Your task to perform on an android device: add a contact in the contacts app Image 0: 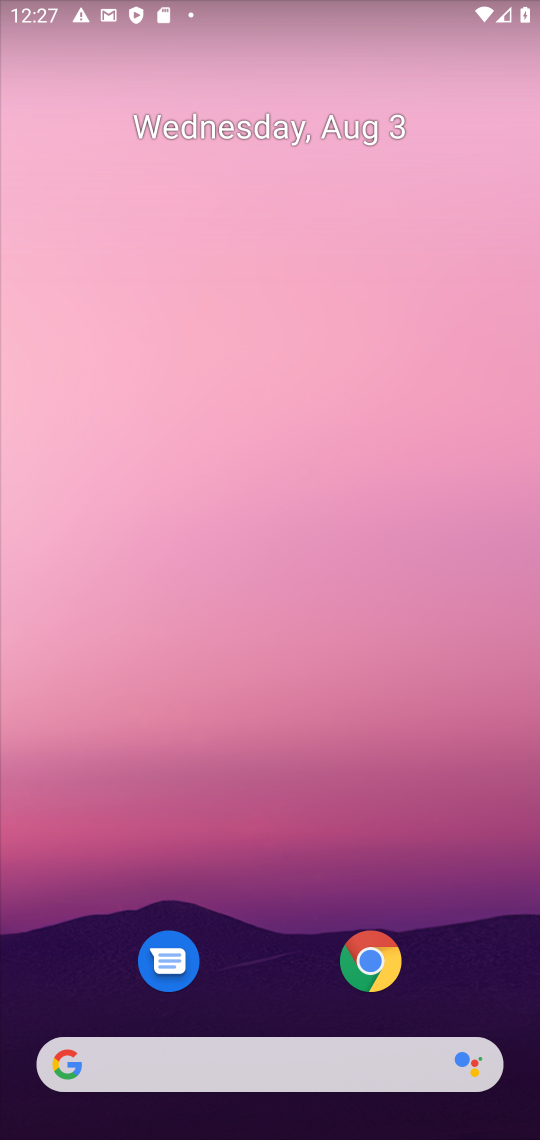
Step 0: drag from (295, 778) to (302, 59)
Your task to perform on an android device: add a contact in the contacts app Image 1: 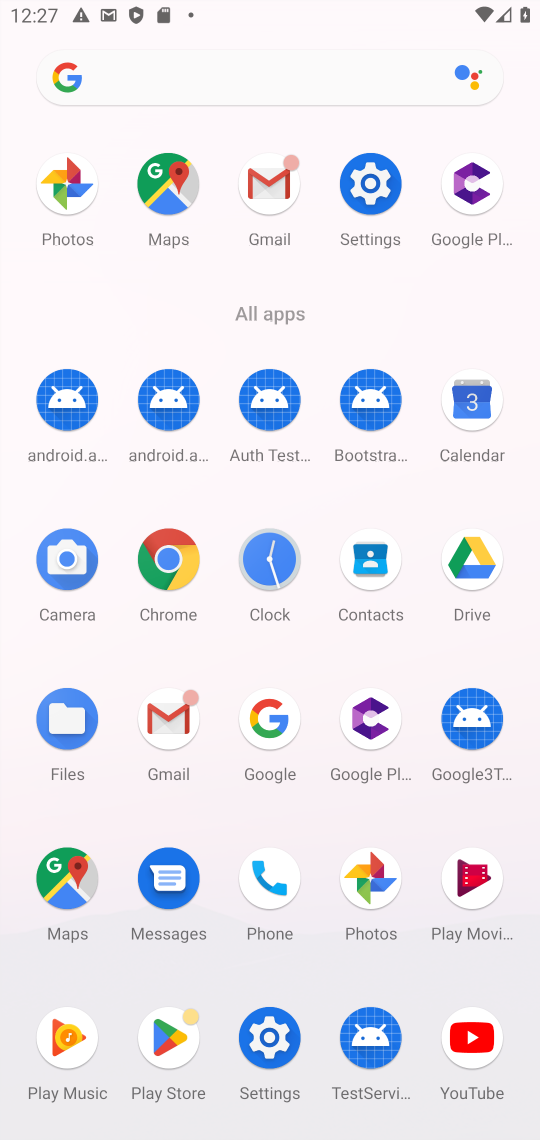
Step 1: click (366, 568)
Your task to perform on an android device: add a contact in the contacts app Image 2: 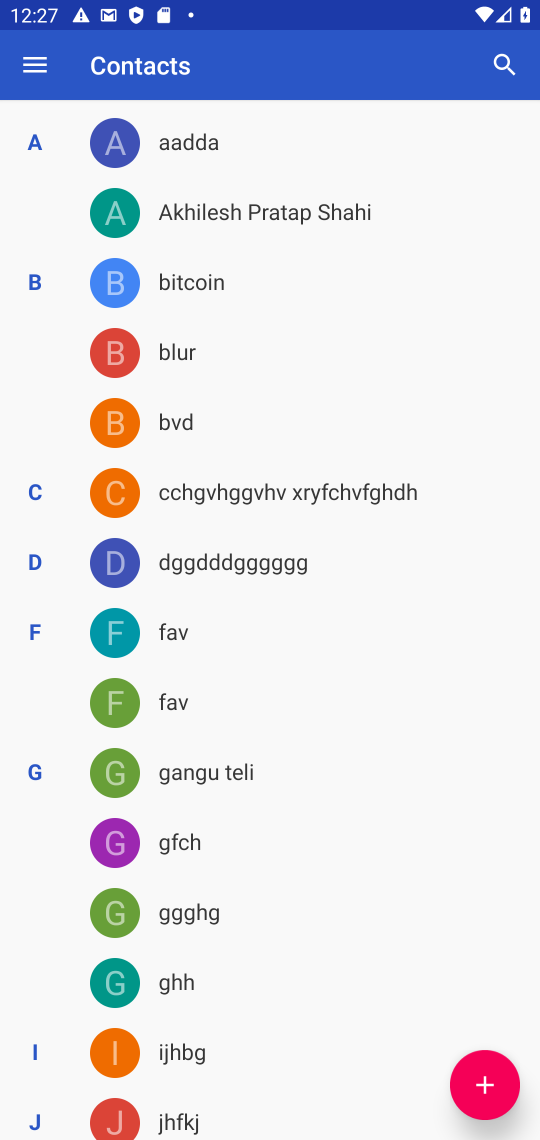
Step 2: click (479, 1084)
Your task to perform on an android device: add a contact in the contacts app Image 3: 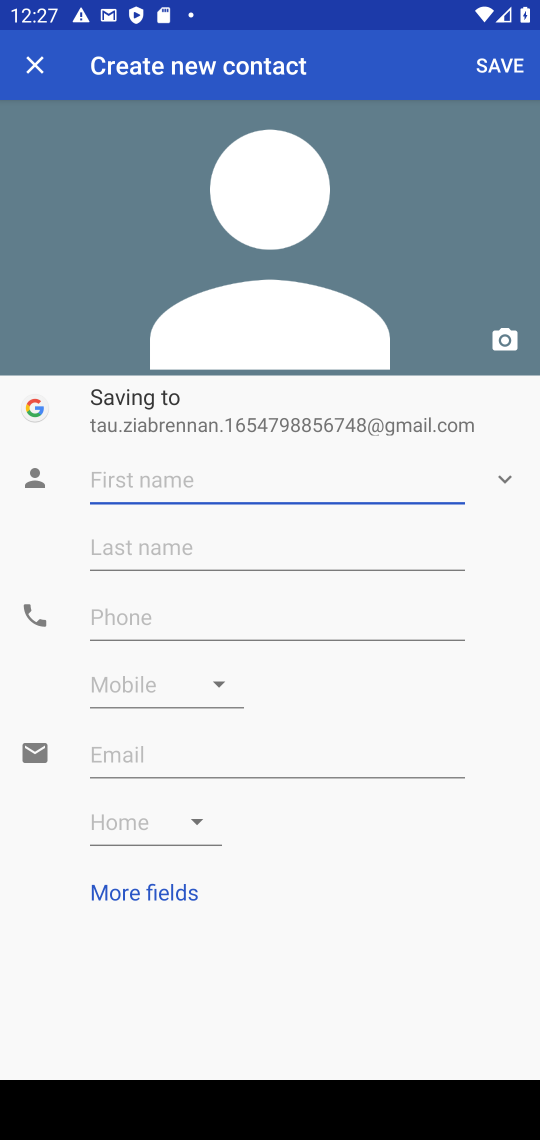
Step 3: click (162, 483)
Your task to perform on an android device: add a contact in the contacts app Image 4: 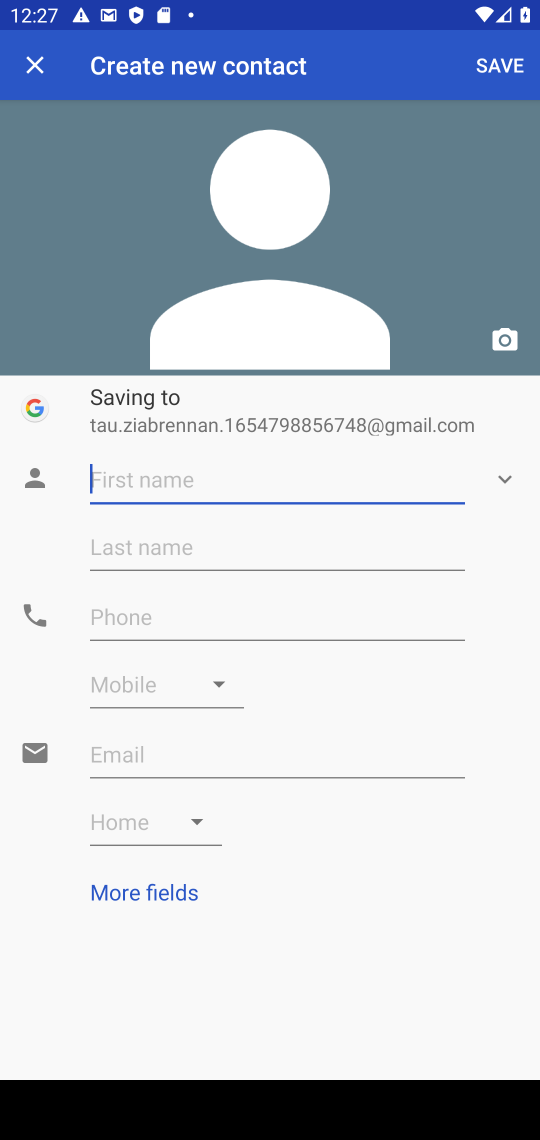
Step 4: type "hsjsksi"
Your task to perform on an android device: add a contact in the contacts app Image 5: 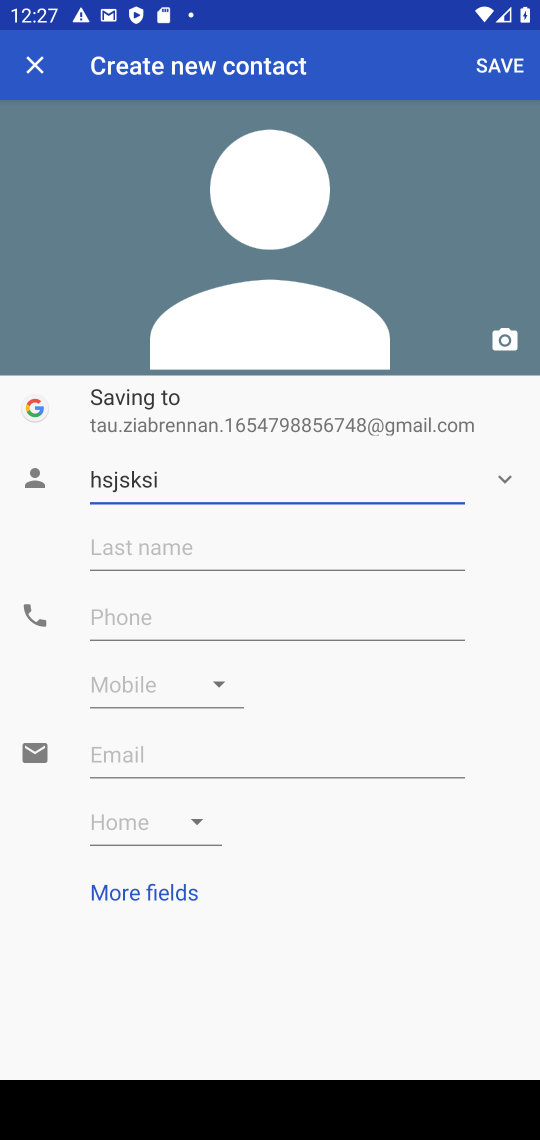
Step 5: click (190, 613)
Your task to perform on an android device: add a contact in the contacts app Image 6: 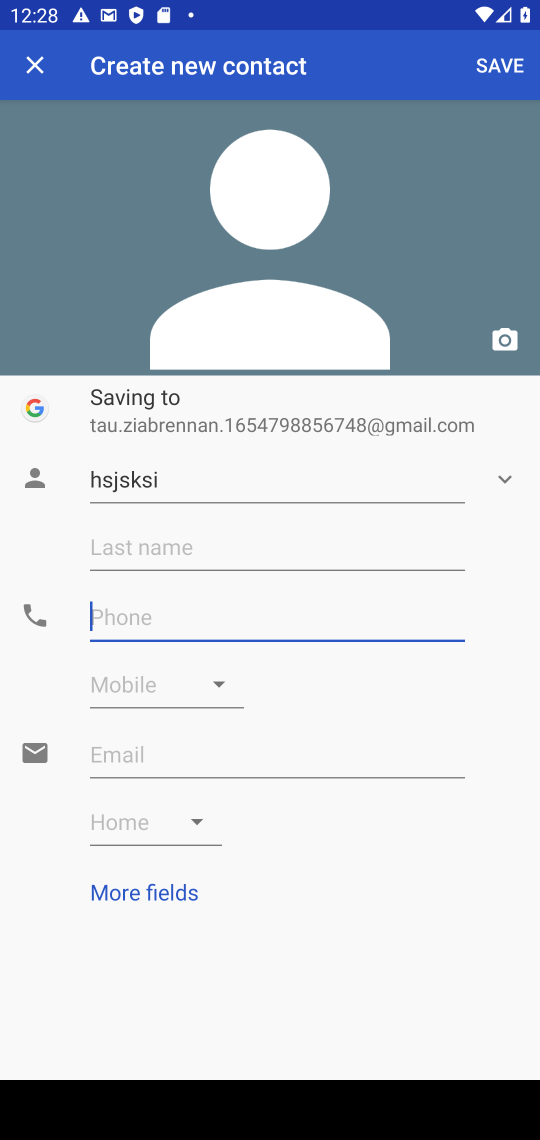
Step 6: type "65434566666"
Your task to perform on an android device: add a contact in the contacts app Image 7: 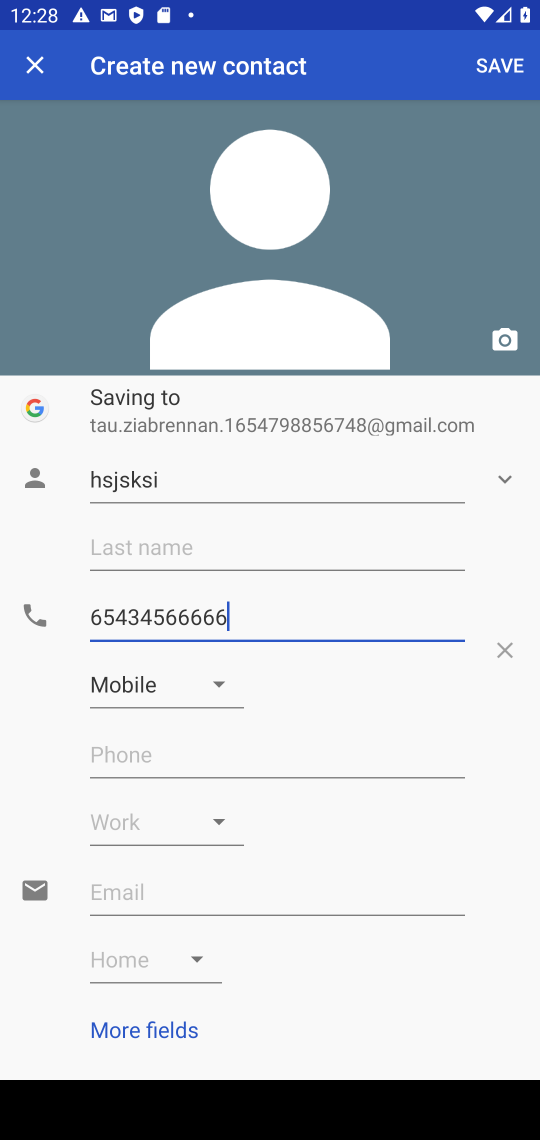
Step 7: click (498, 71)
Your task to perform on an android device: add a contact in the contacts app Image 8: 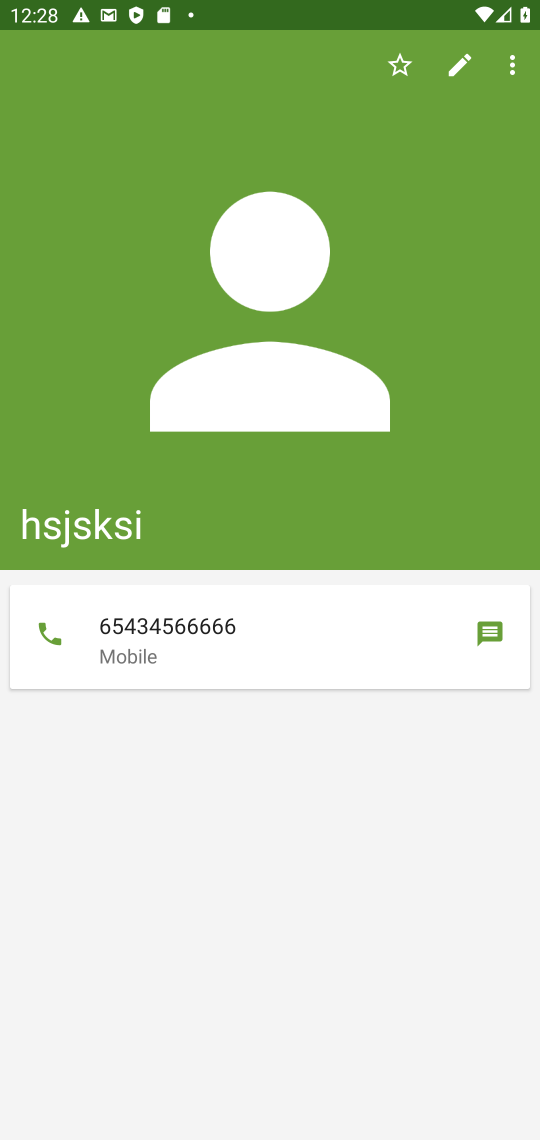
Step 8: task complete